Your task to perform on an android device: delete a single message in the gmail app Image 0: 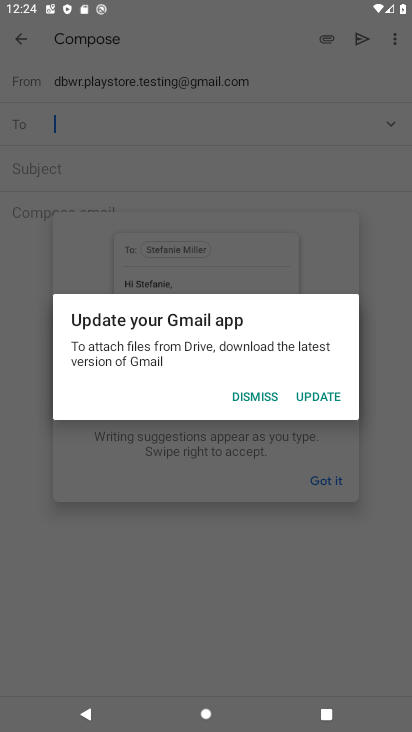
Step 0: click (273, 397)
Your task to perform on an android device: delete a single message in the gmail app Image 1: 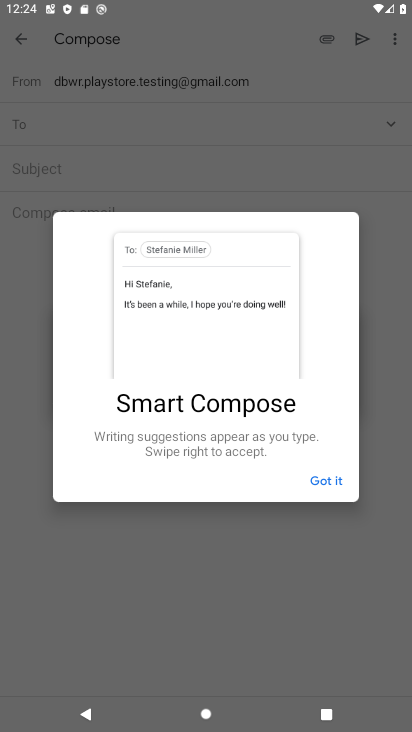
Step 1: click (314, 464)
Your task to perform on an android device: delete a single message in the gmail app Image 2: 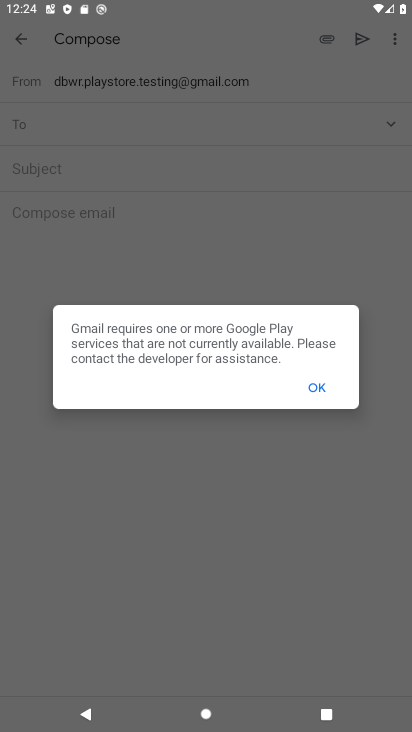
Step 2: click (320, 380)
Your task to perform on an android device: delete a single message in the gmail app Image 3: 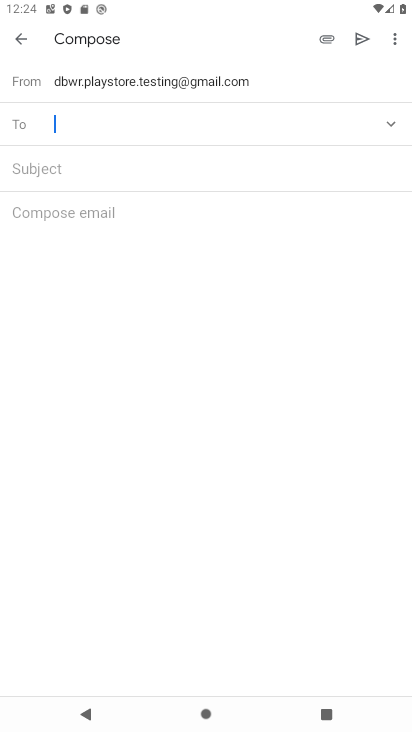
Step 3: click (17, 40)
Your task to perform on an android device: delete a single message in the gmail app Image 4: 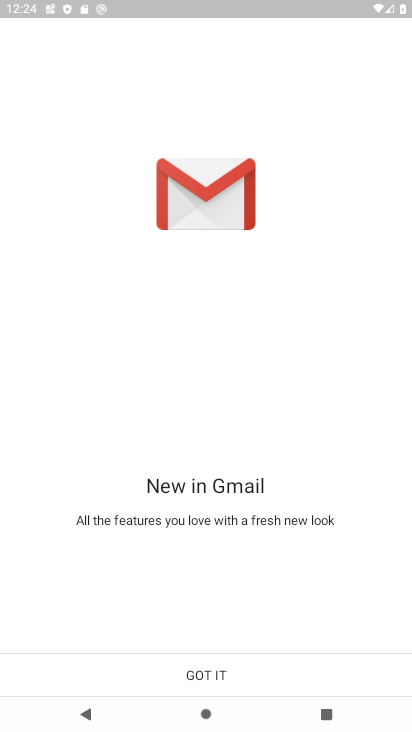
Step 4: click (209, 677)
Your task to perform on an android device: delete a single message in the gmail app Image 5: 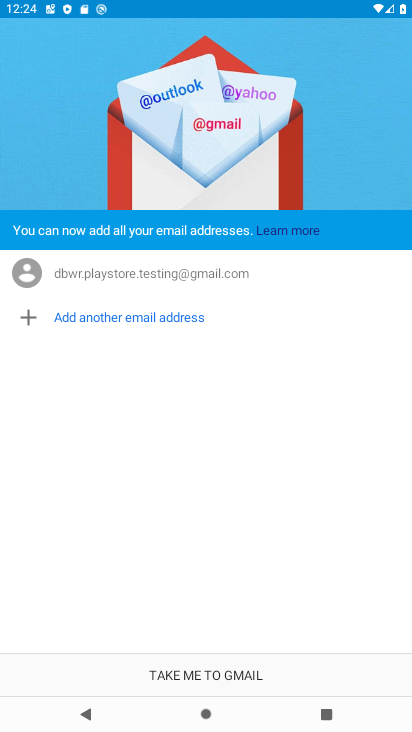
Step 5: click (209, 677)
Your task to perform on an android device: delete a single message in the gmail app Image 6: 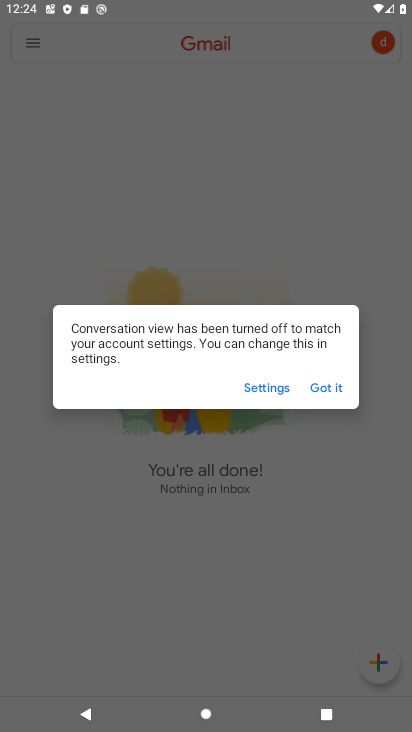
Step 6: click (326, 382)
Your task to perform on an android device: delete a single message in the gmail app Image 7: 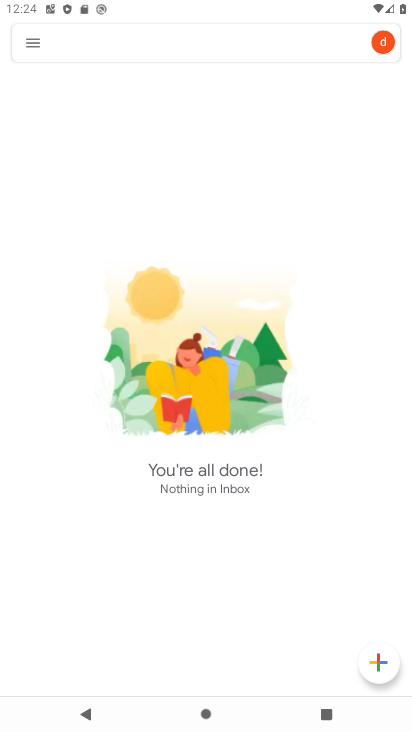
Step 7: click (322, 370)
Your task to perform on an android device: delete a single message in the gmail app Image 8: 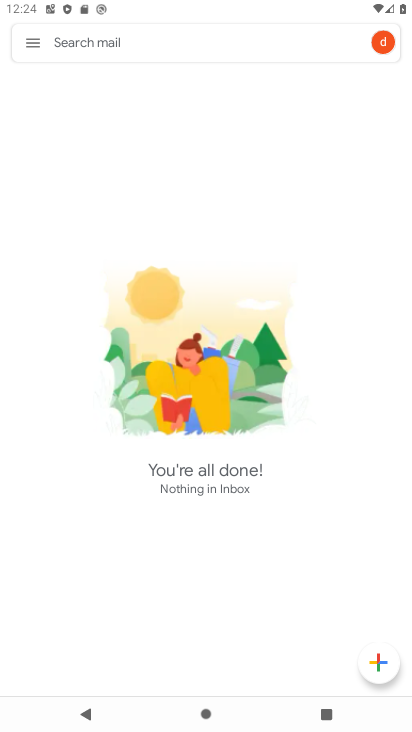
Step 8: click (33, 42)
Your task to perform on an android device: delete a single message in the gmail app Image 9: 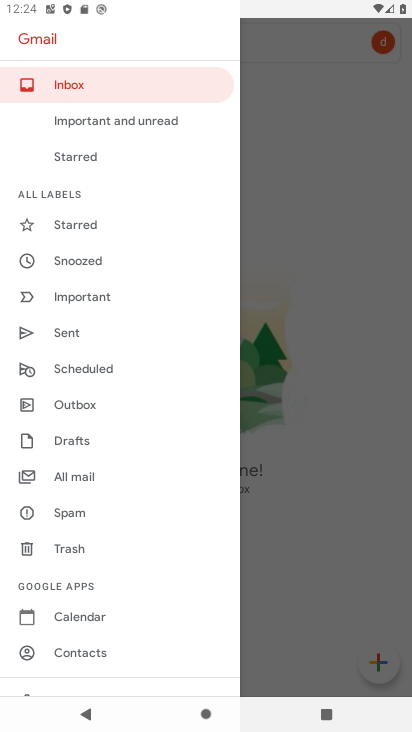
Step 9: click (79, 477)
Your task to perform on an android device: delete a single message in the gmail app Image 10: 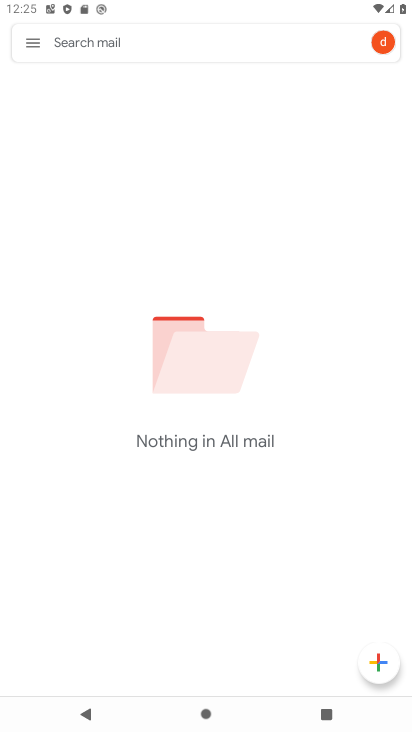
Step 10: task complete